Your task to perform on an android device: Find coffee shops on Maps Image 0: 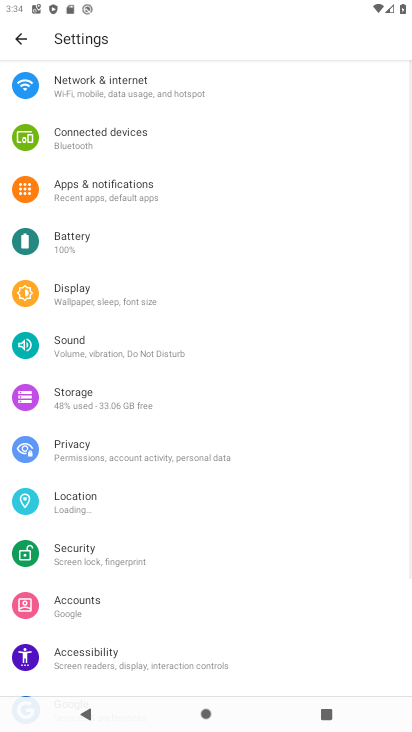
Step 0: press home button
Your task to perform on an android device: Find coffee shops on Maps Image 1: 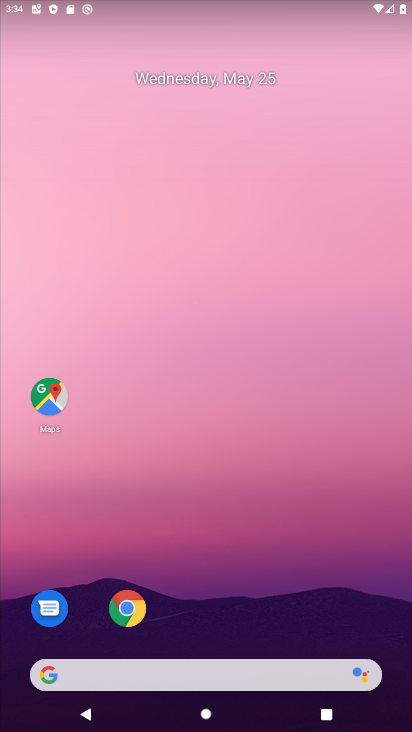
Step 1: click (49, 405)
Your task to perform on an android device: Find coffee shops on Maps Image 2: 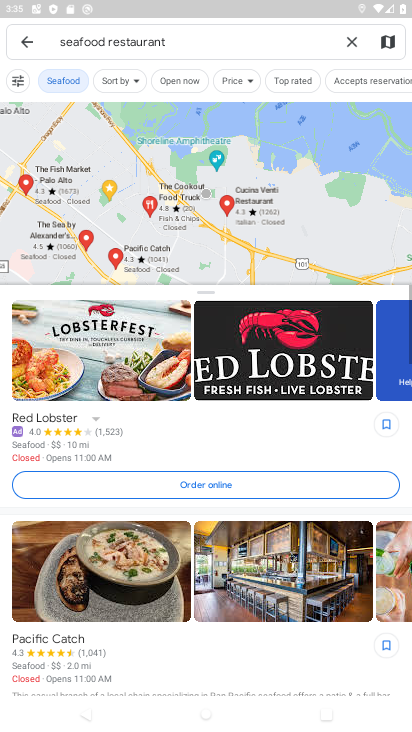
Step 2: click (352, 35)
Your task to perform on an android device: Find coffee shops on Maps Image 3: 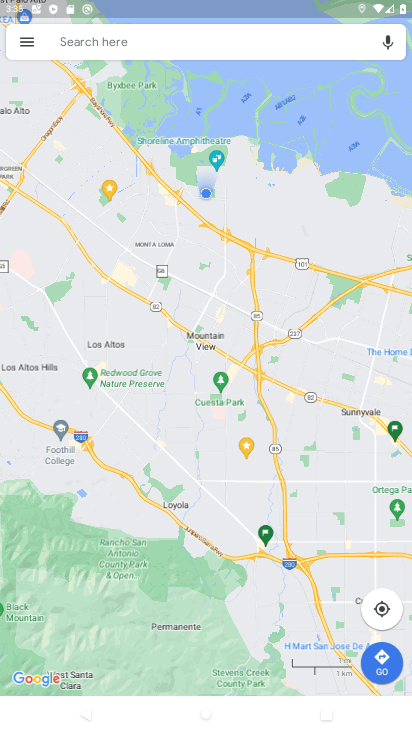
Step 3: click (279, 35)
Your task to perform on an android device: Find coffee shops on Maps Image 4: 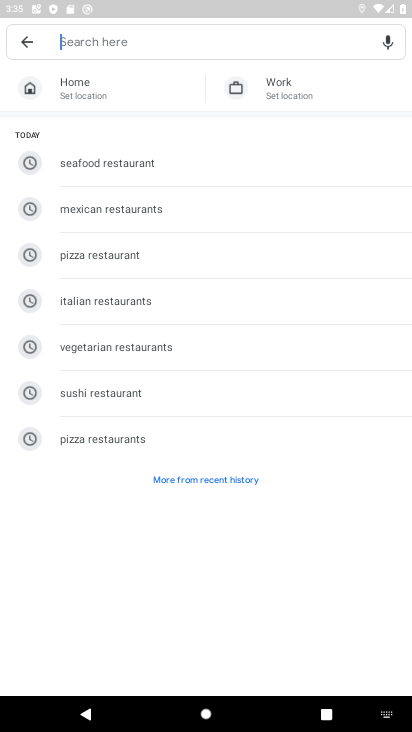
Step 4: type "coffee"
Your task to perform on an android device: Find coffee shops on Maps Image 5: 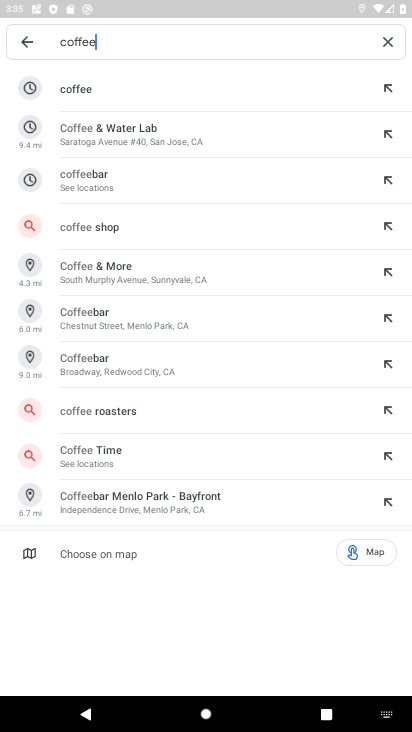
Step 5: click (170, 224)
Your task to perform on an android device: Find coffee shops on Maps Image 6: 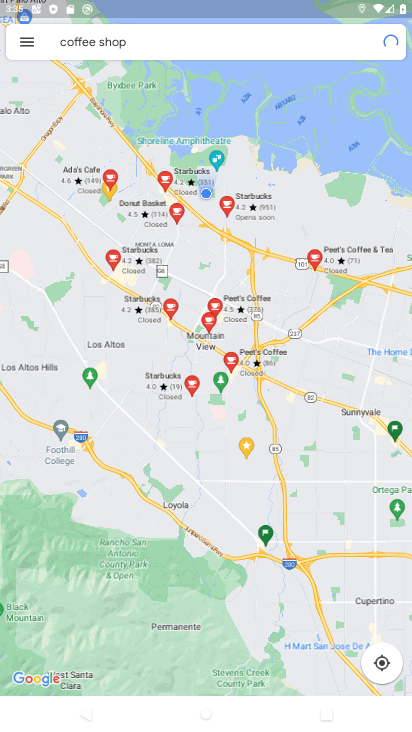
Step 6: task complete